Your task to perform on an android device: change the clock display to analog Image 0: 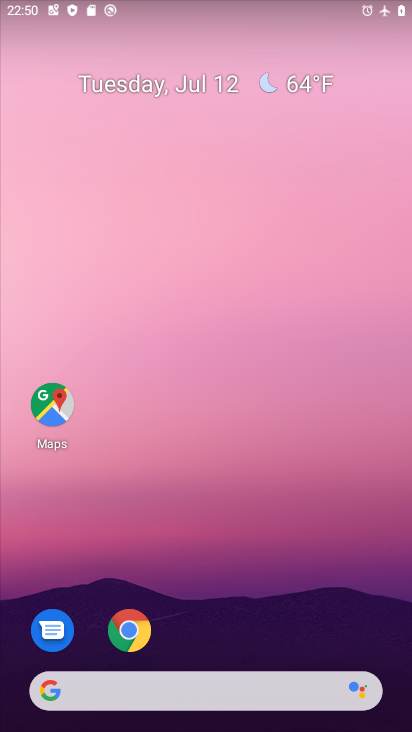
Step 0: drag from (220, 649) to (221, 149)
Your task to perform on an android device: change the clock display to analog Image 1: 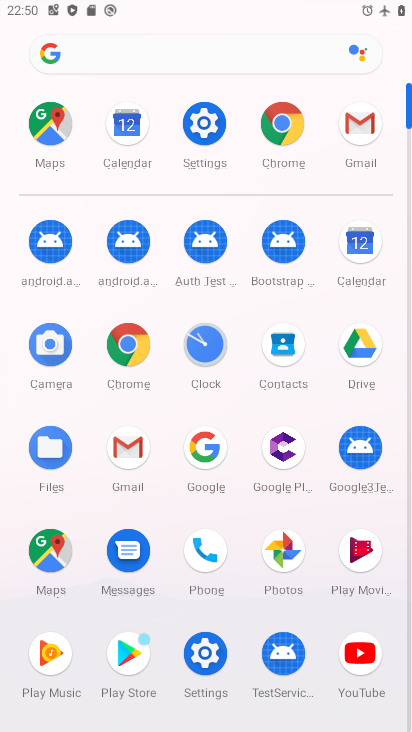
Step 1: click (216, 353)
Your task to perform on an android device: change the clock display to analog Image 2: 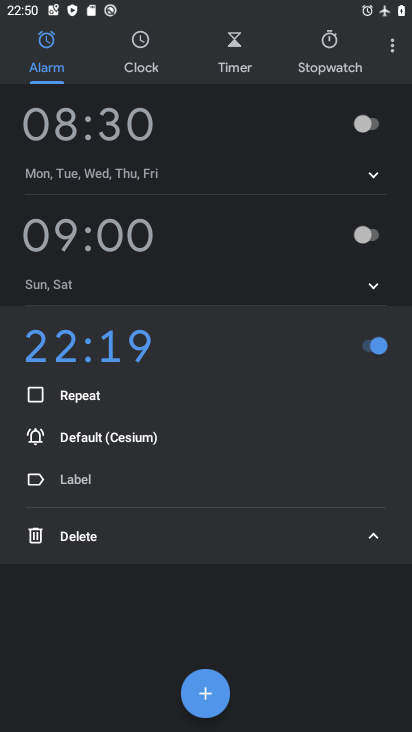
Step 2: drag from (395, 41) to (344, 89)
Your task to perform on an android device: change the clock display to analog Image 3: 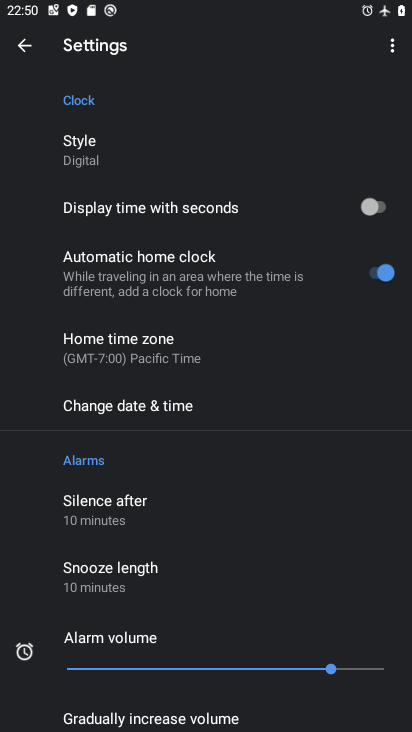
Step 3: click (125, 161)
Your task to perform on an android device: change the clock display to analog Image 4: 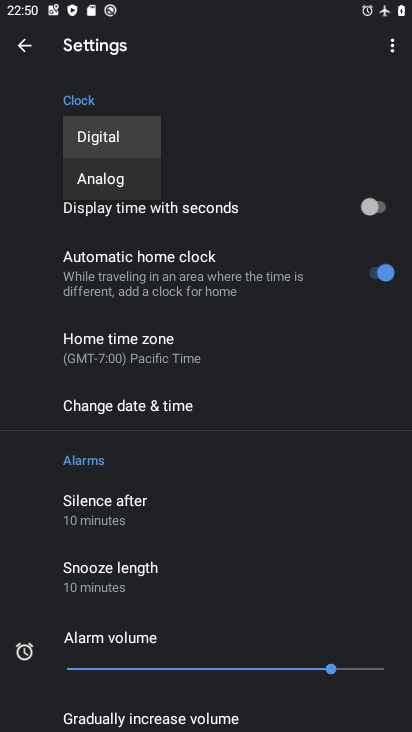
Step 4: click (122, 175)
Your task to perform on an android device: change the clock display to analog Image 5: 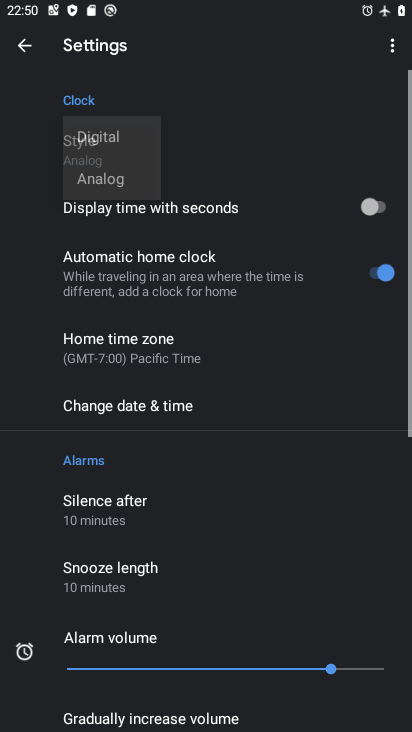
Step 5: task complete